Your task to perform on an android device: remove spam from my inbox in the gmail app Image 0: 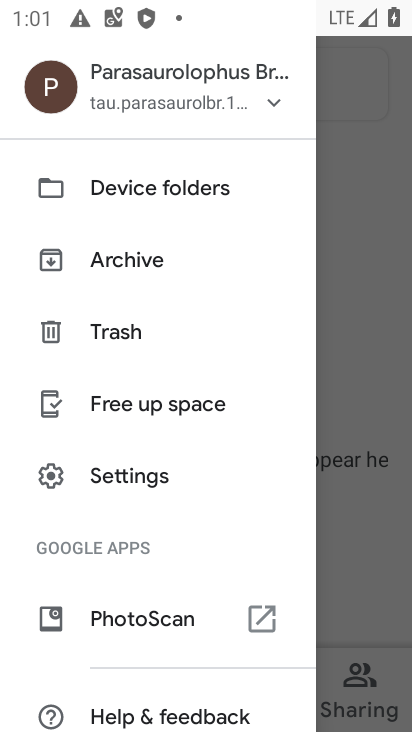
Step 0: press home button
Your task to perform on an android device: remove spam from my inbox in the gmail app Image 1: 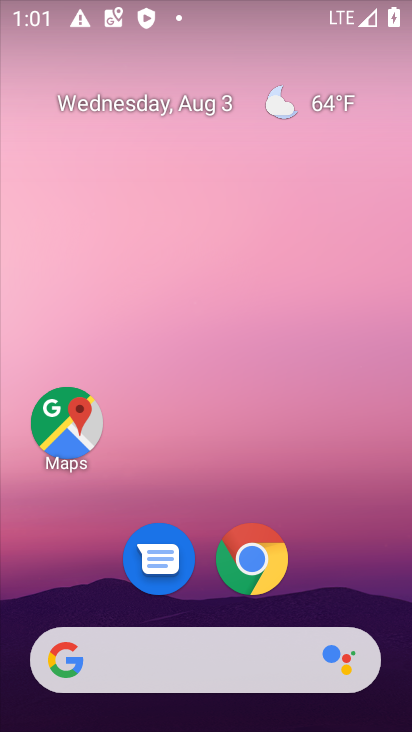
Step 1: drag from (204, 618) to (233, 25)
Your task to perform on an android device: remove spam from my inbox in the gmail app Image 2: 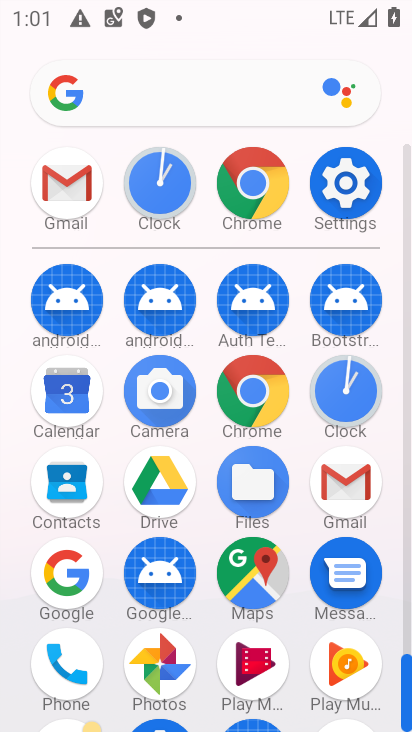
Step 2: click (339, 477)
Your task to perform on an android device: remove spam from my inbox in the gmail app Image 3: 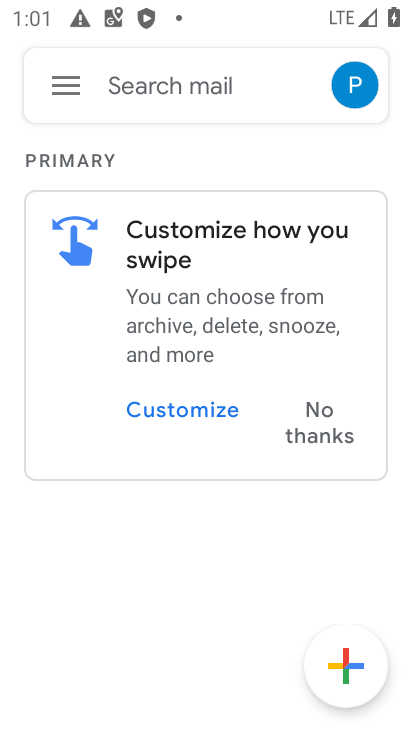
Step 3: task complete